Your task to perform on an android device: What's the weather going to be this weekend? Image 0: 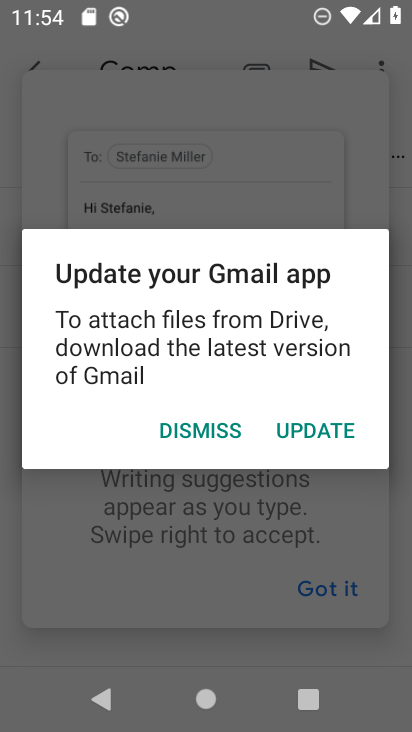
Step 0: press home button
Your task to perform on an android device: What's the weather going to be this weekend? Image 1: 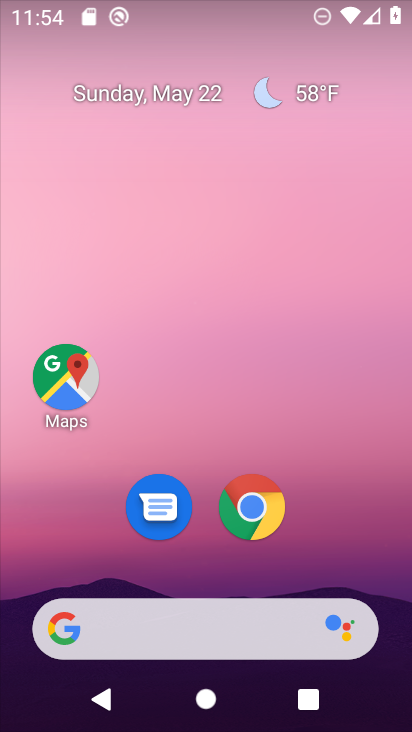
Step 1: click (275, 624)
Your task to perform on an android device: What's the weather going to be this weekend? Image 2: 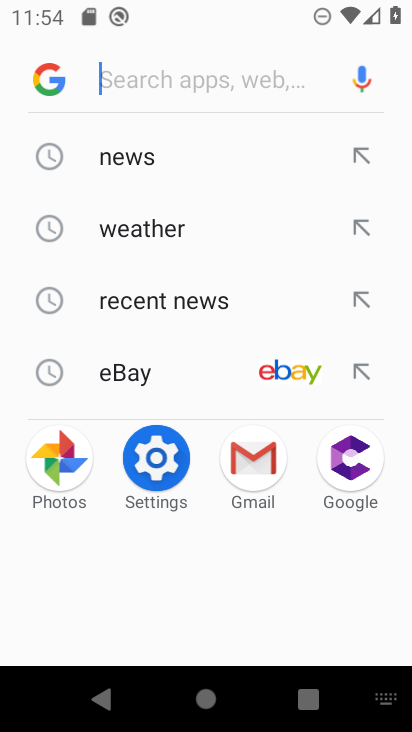
Step 2: type "What's the weather going to be this weekend?"
Your task to perform on an android device: What's the weather going to be this weekend? Image 3: 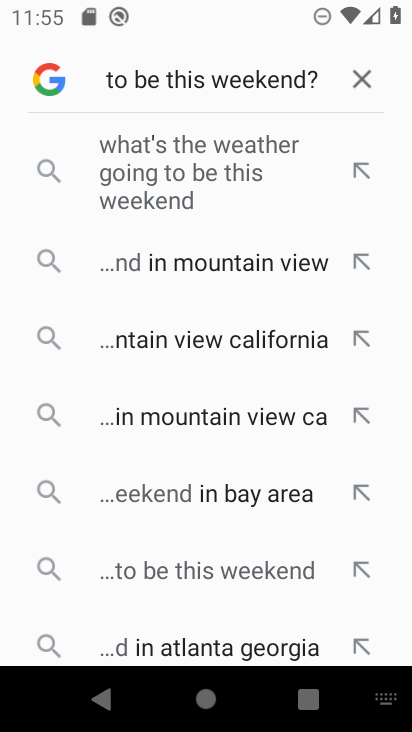
Step 3: click (136, 175)
Your task to perform on an android device: What's the weather going to be this weekend? Image 4: 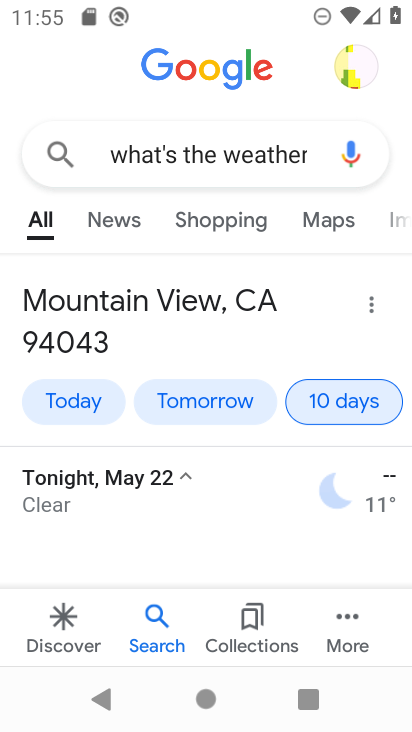
Step 4: task complete